Your task to perform on an android device: Go to Maps Image 0: 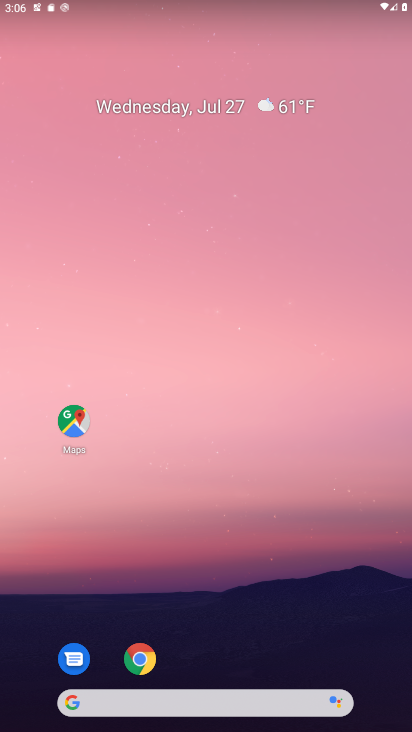
Step 0: click (77, 425)
Your task to perform on an android device: Go to Maps Image 1: 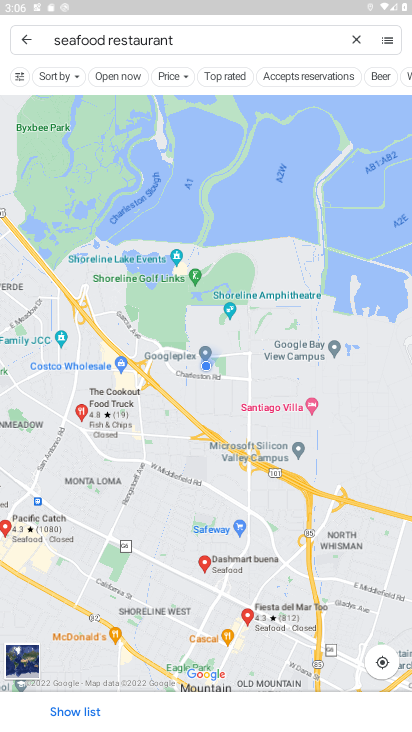
Step 1: task complete